Your task to perform on an android device: check storage Image 0: 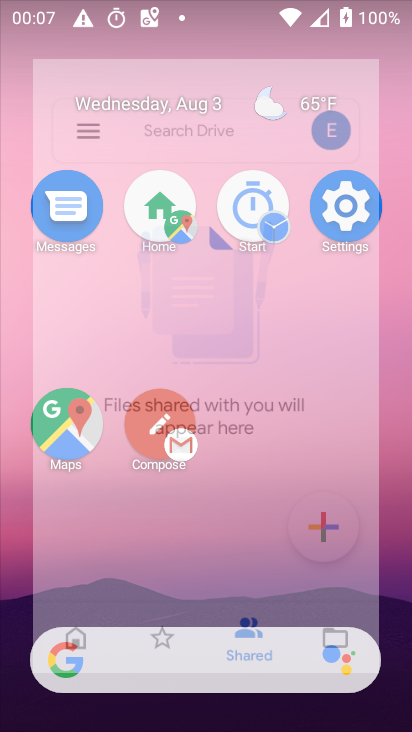
Step 0: drag from (293, 679) to (235, 110)
Your task to perform on an android device: check storage Image 1: 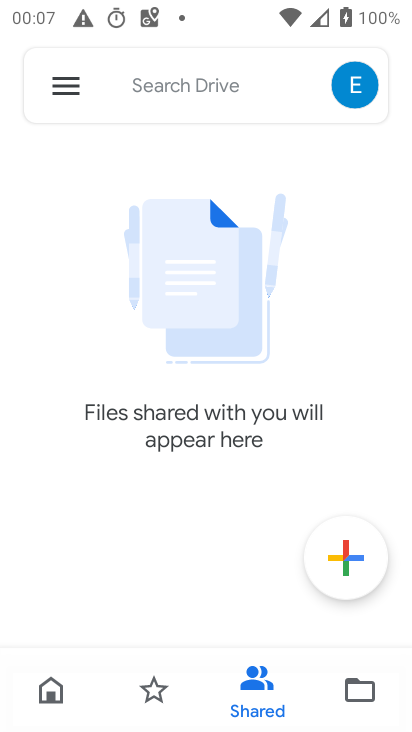
Step 1: press back button
Your task to perform on an android device: check storage Image 2: 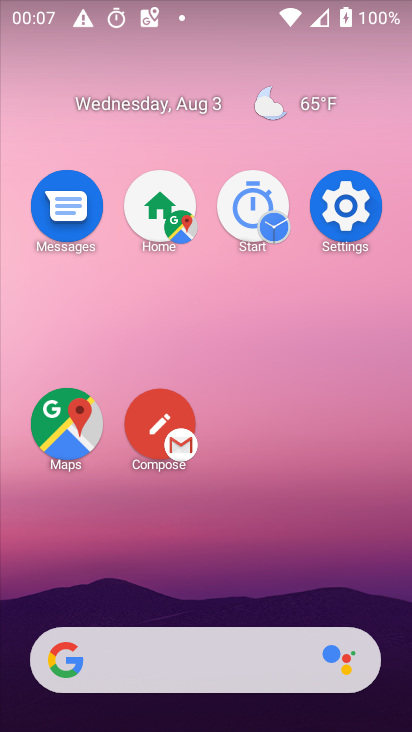
Step 2: click (374, 218)
Your task to perform on an android device: check storage Image 3: 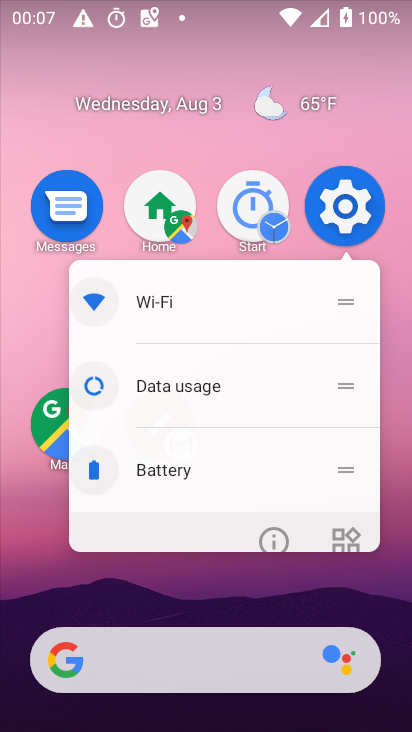
Step 3: click (360, 215)
Your task to perform on an android device: check storage Image 4: 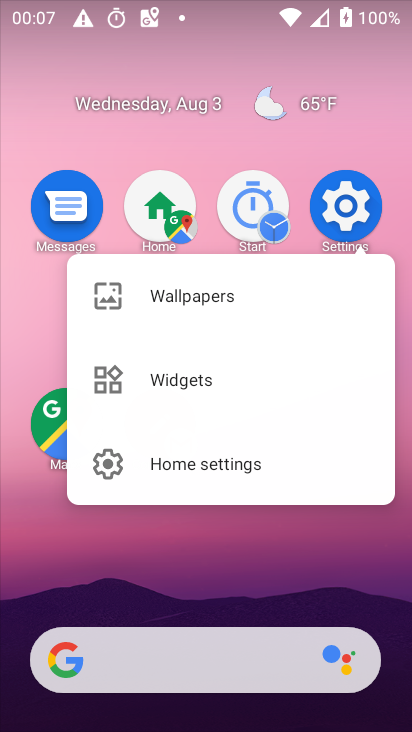
Step 4: click (358, 217)
Your task to perform on an android device: check storage Image 5: 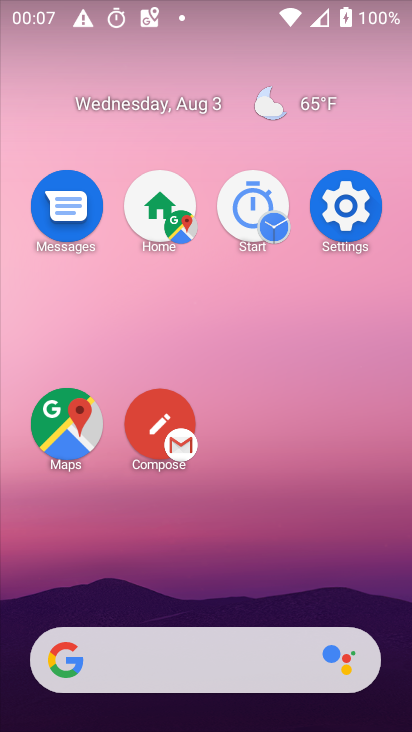
Step 5: click (354, 220)
Your task to perform on an android device: check storage Image 6: 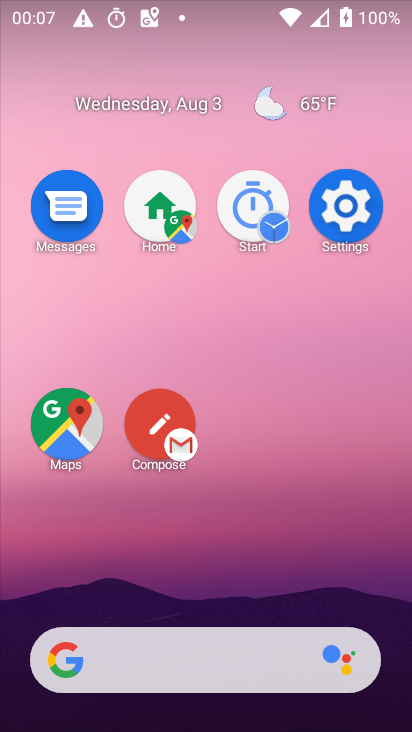
Step 6: click (354, 220)
Your task to perform on an android device: check storage Image 7: 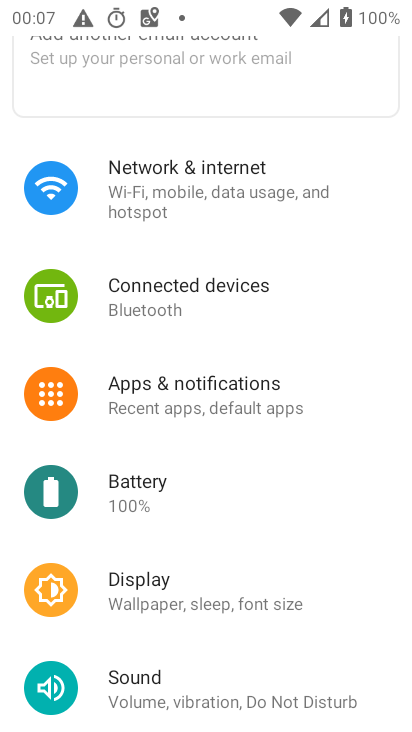
Step 7: click (344, 194)
Your task to perform on an android device: check storage Image 8: 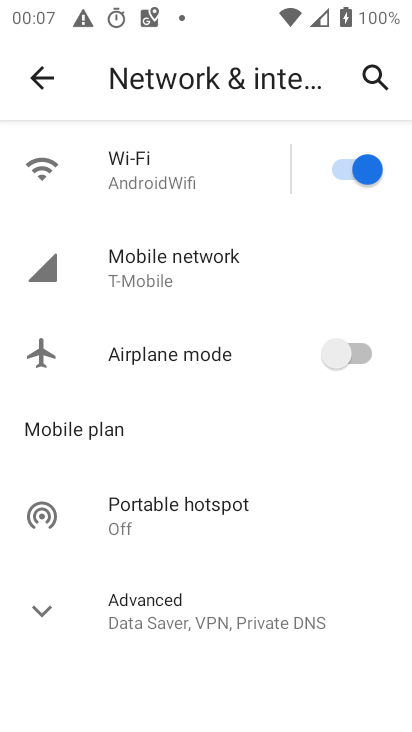
Step 8: click (35, 72)
Your task to perform on an android device: check storage Image 9: 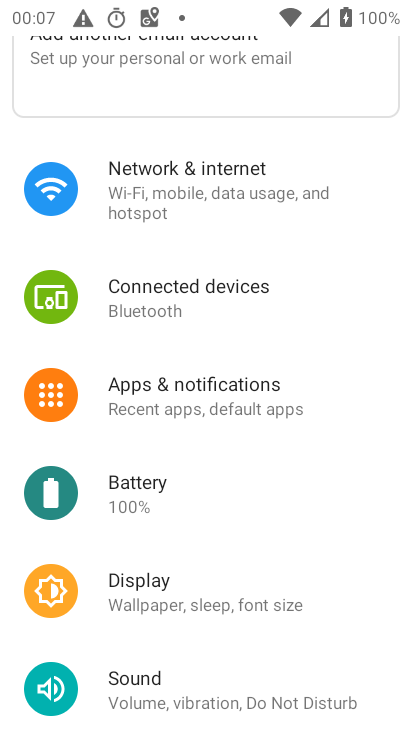
Step 9: drag from (130, 629) to (85, 290)
Your task to perform on an android device: check storage Image 10: 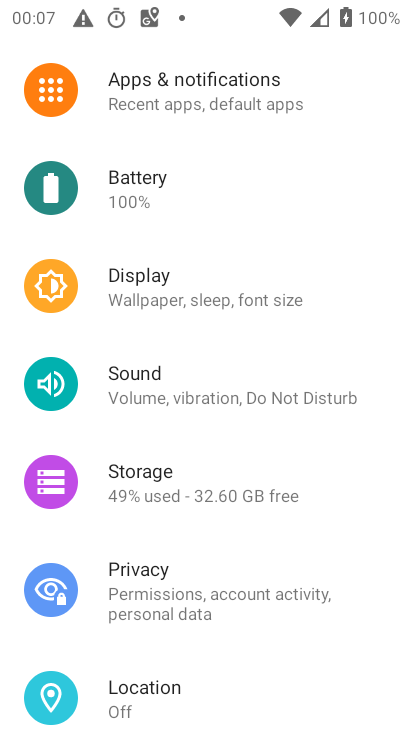
Step 10: drag from (167, 541) to (161, 387)
Your task to perform on an android device: check storage Image 11: 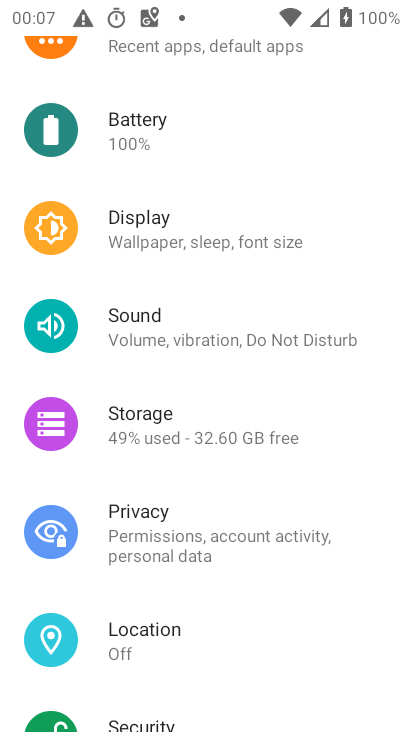
Step 11: click (145, 414)
Your task to perform on an android device: check storage Image 12: 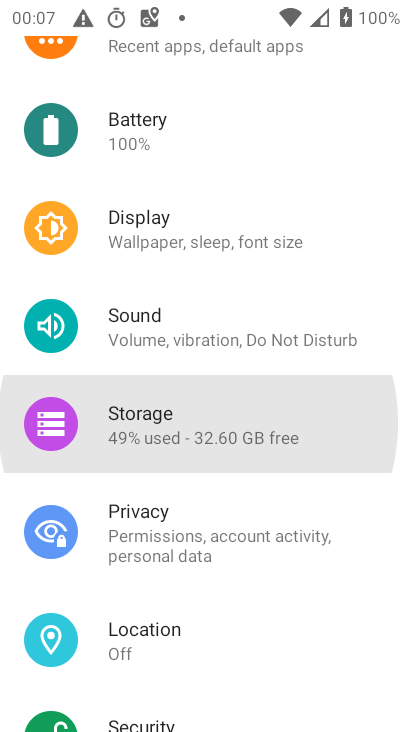
Step 12: click (146, 412)
Your task to perform on an android device: check storage Image 13: 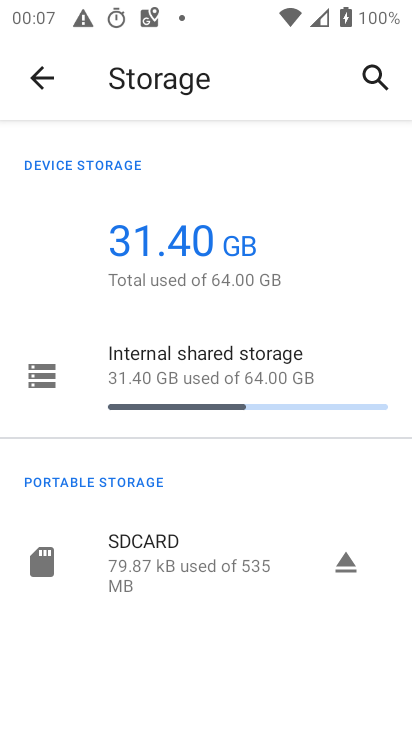
Step 13: task complete